Your task to perform on an android device: turn vacation reply on in the gmail app Image 0: 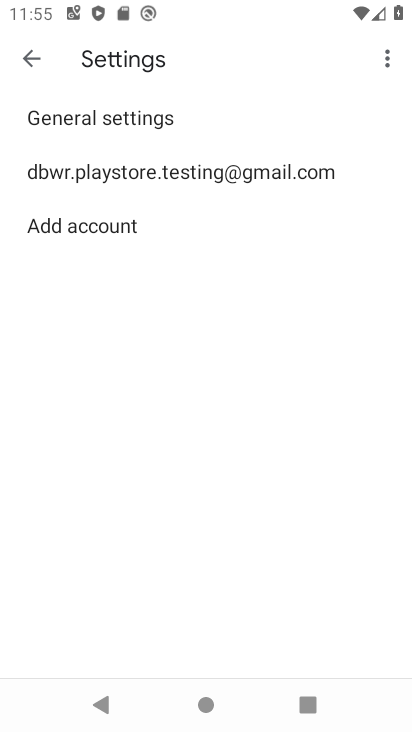
Step 0: click (190, 186)
Your task to perform on an android device: turn vacation reply on in the gmail app Image 1: 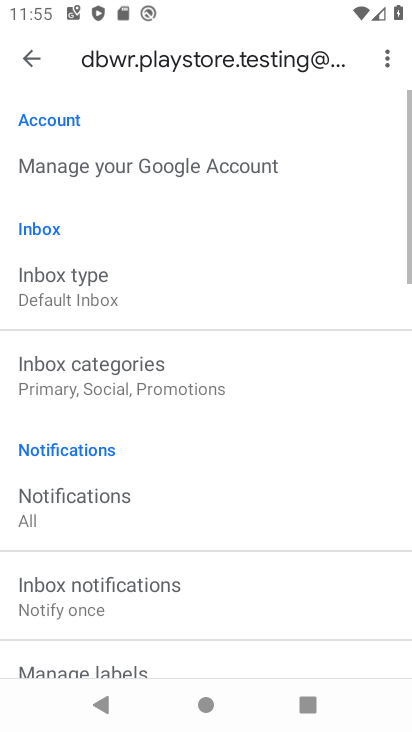
Step 1: drag from (184, 581) to (300, 111)
Your task to perform on an android device: turn vacation reply on in the gmail app Image 2: 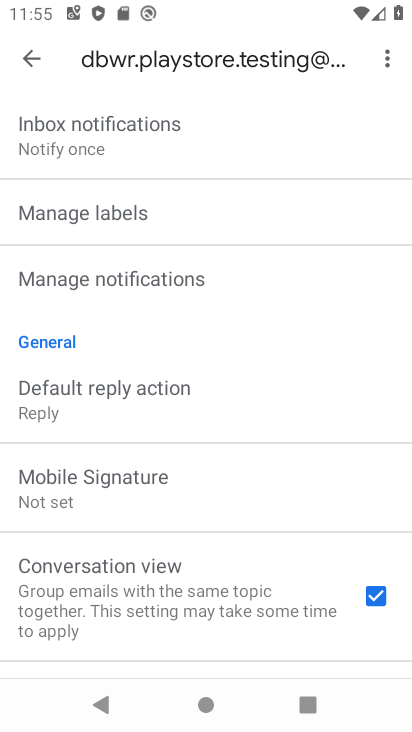
Step 2: drag from (170, 560) to (249, 412)
Your task to perform on an android device: turn vacation reply on in the gmail app Image 3: 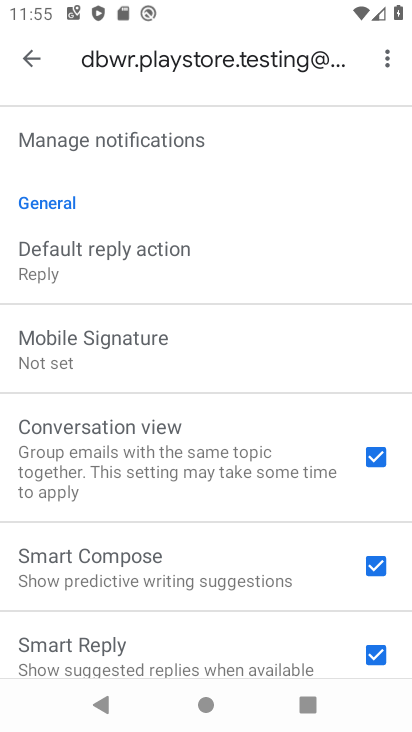
Step 3: drag from (168, 567) to (198, 356)
Your task to perform on an android device: turn vacation reply on in the gmail app Image 4: 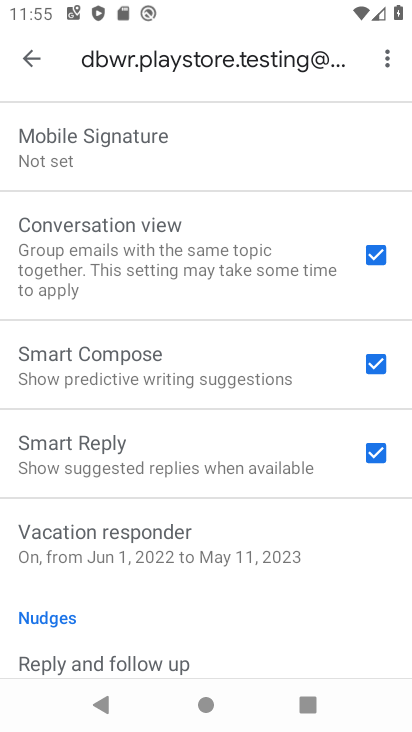
Step 4: click (176, 553)
Your task to perform on an android device: turn vacation reply on in the gmail app Image 5: 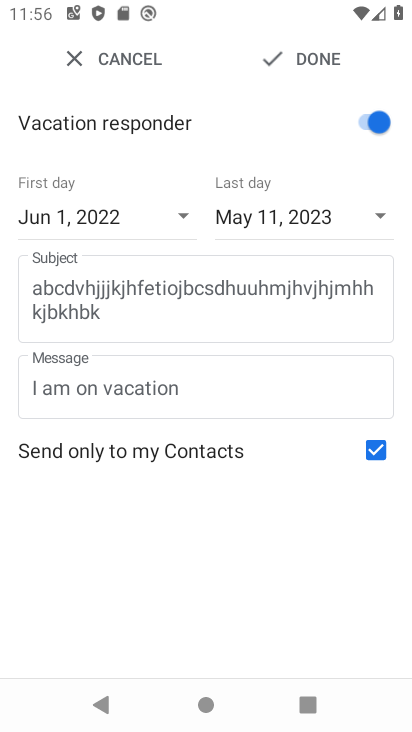
Step 5: task complete